Your task to perform on an android device: turn off data saver in the chrome app Image 0: 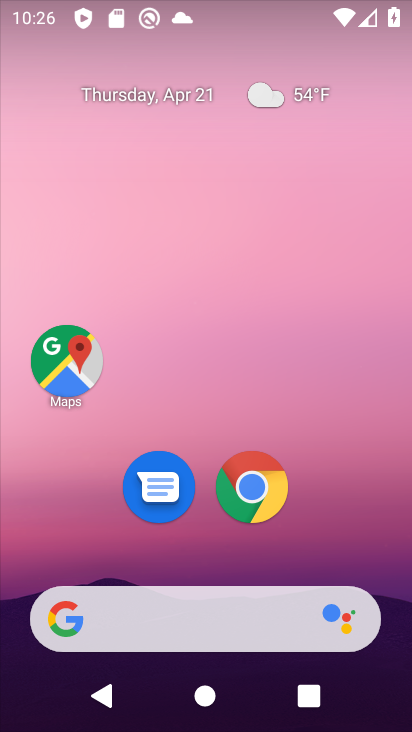
Step 0: drag from (375, 540) to (375, 172)
Your task to perform on an android device: turn off data saver in the chrome app Image 1: 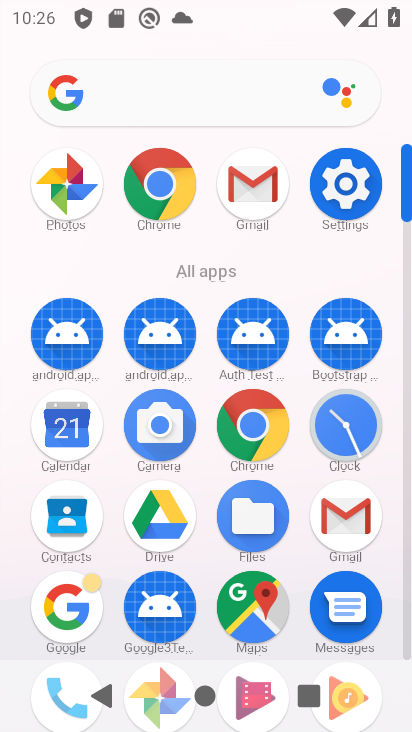
Step 1: click (259, 437)
Your task to perform on an android device: turn off data saver in the chrome app Image 2: 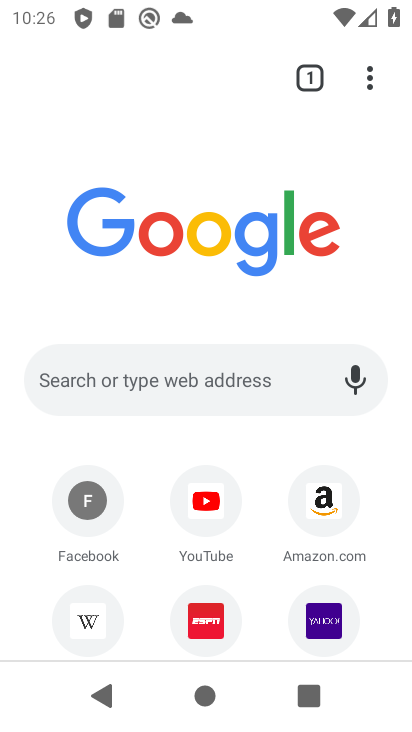
Step 2: drag from (372, 82) to (169, 550)
Your task to perform on an android device: turn off data saver in the chrome app Image 3: 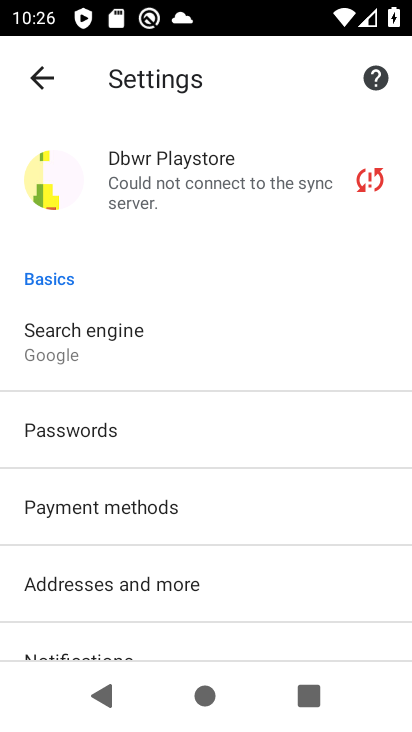
Step 3: drag from (258, 599) to (298, 300)
Your task to perform on an android device: turn off data saver in the chrome app Image 4: 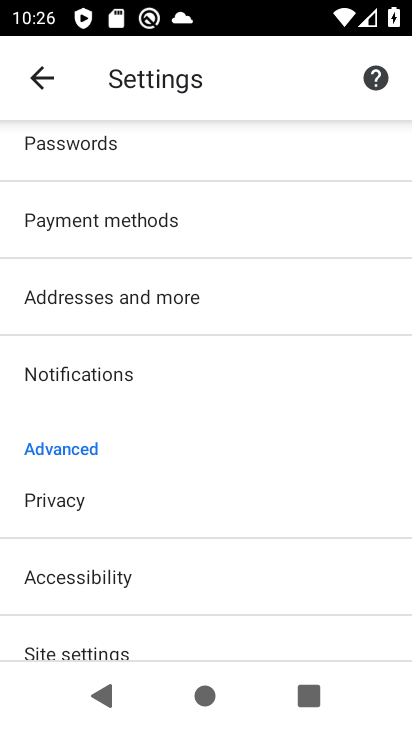
Step 4: drag from (296, 621) to (303, 282)
Your task to perform on an android device: turn off data saver in the chrome app Image 5: 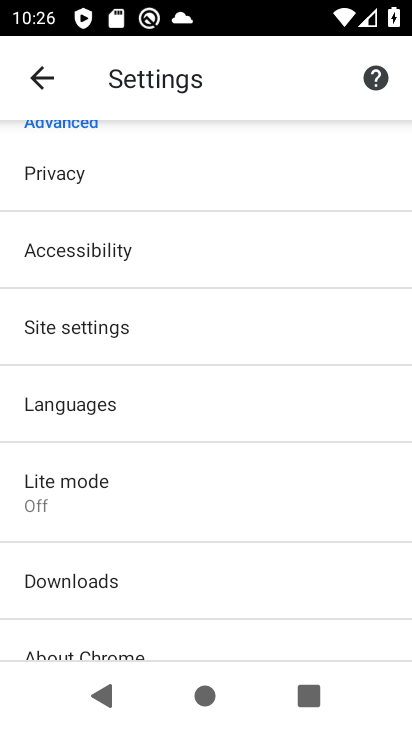
Step 5: drag from (212, 602) to (270, 320)
Your task to perform on an android device: turn off data saver in the chrome app Image 6: 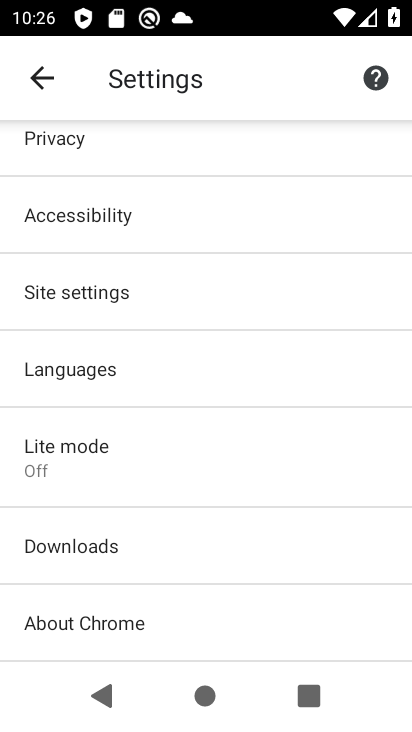
Step 6: click (83, 465)
Your task to perform on an android device: turn off data saver in the chrome app Image 7: 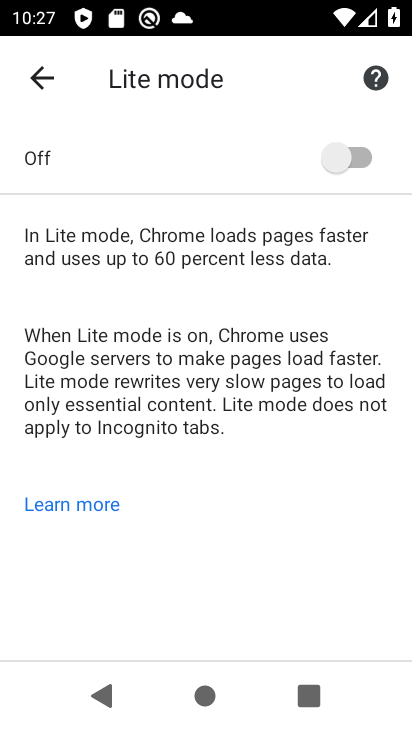
Step 7: task complete